Your task to perform on an android device: turn off sleep mode Image 0: 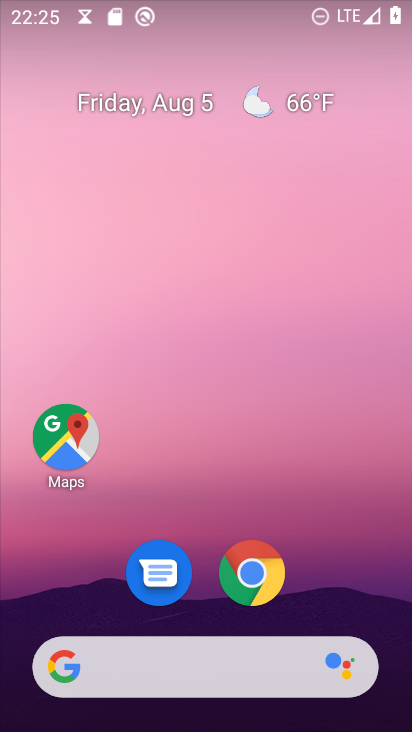
Step 0: drag from (201, 685) to (282, 191)
Your task to perform on an android device: turn off sleep mode Image 1: 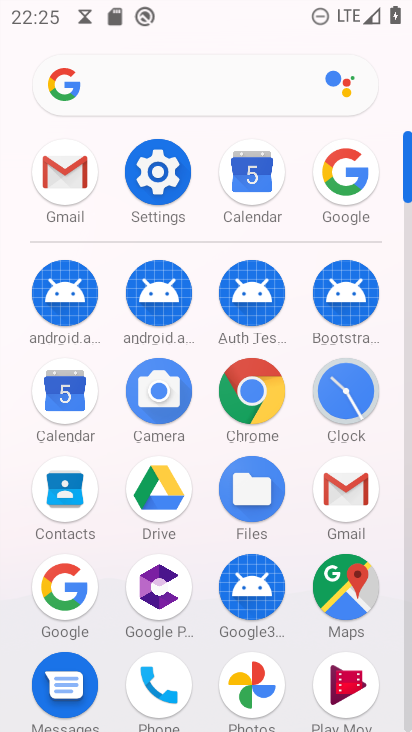
Step 1: click (156, 167)
Your task to perform on an android device: turn off sleep mode Image 2: 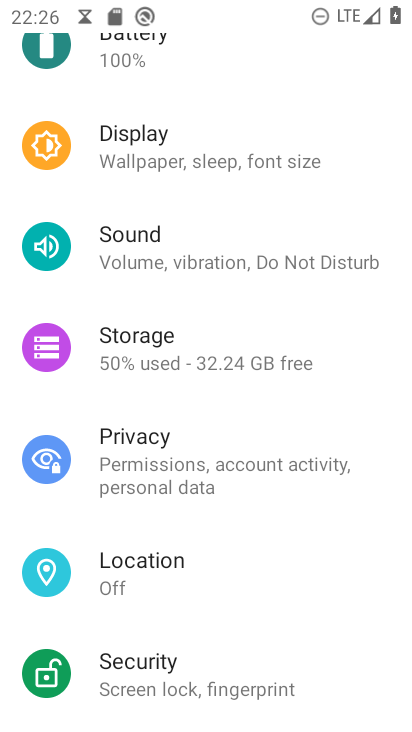
Step 2: click (247, 159)
Your task to perform on an android device: turn off sleep mode Image 3: 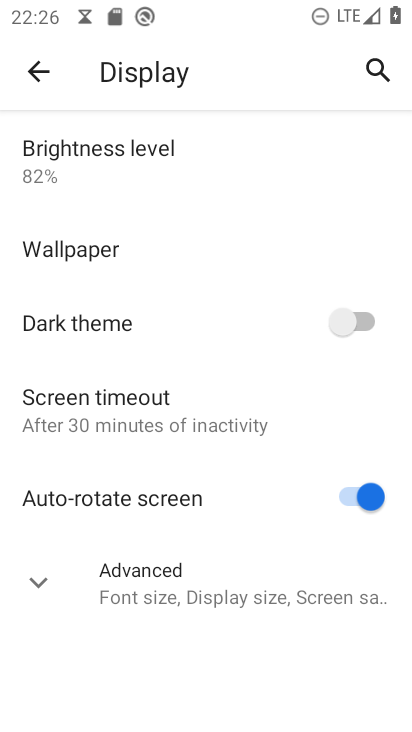
Step 3: click (98, 430)
Your task to perform on an android device: turn off sleep mode Image 4: 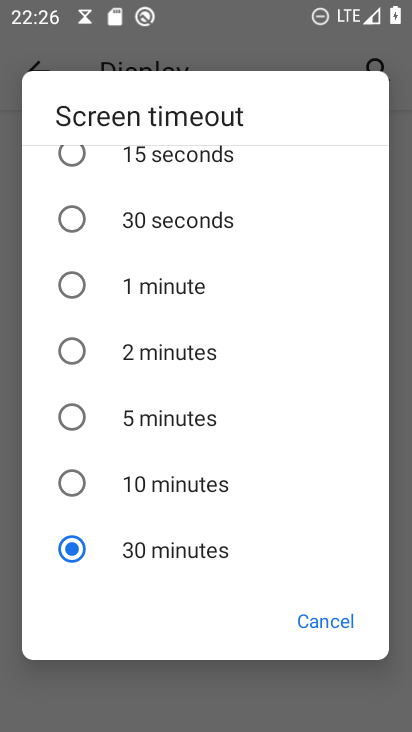
Step 4: click (312, 626)
Your task to perform on an android device: turn off sleep mode Image 5: 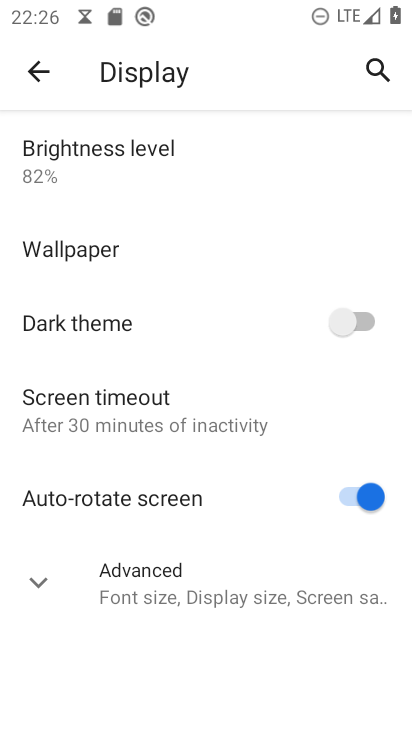
Step 5: click (166, 590)
Your task to perform on an android device: turn off sleep mode Image 6: 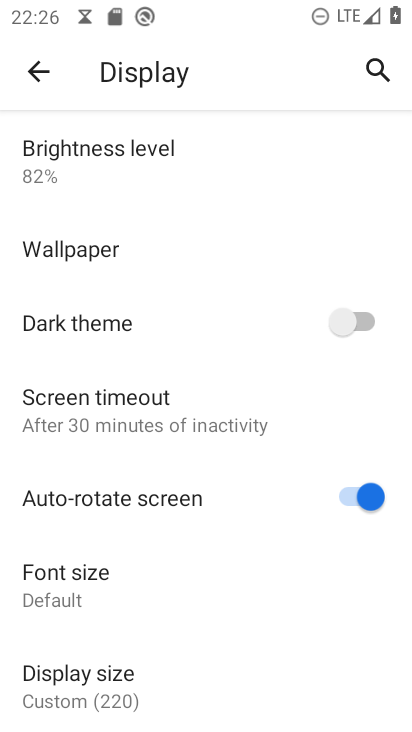
Step 6: task complete